Your task to perform on an android device: Open network settings Image 0: 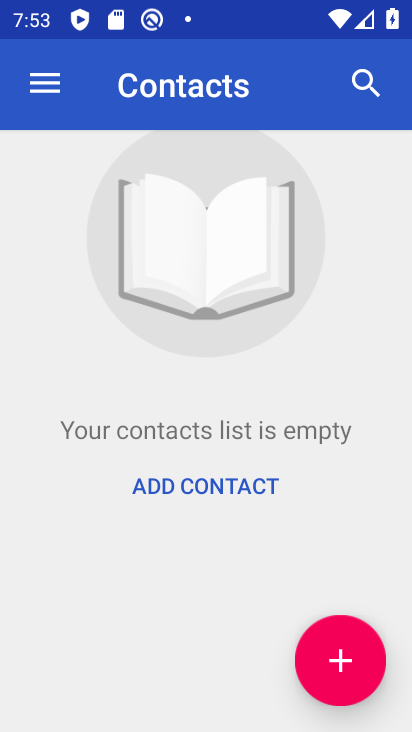
Step 0: press home button
Your task to perform on an android device: Open network settings Image 1: 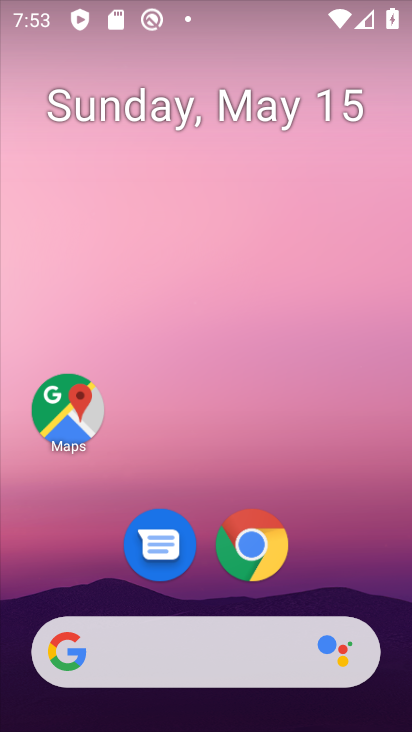
Step 1: drag from (350, 554) to (366, 79)
Your task to perform on an android device: Open network settings Image 2: 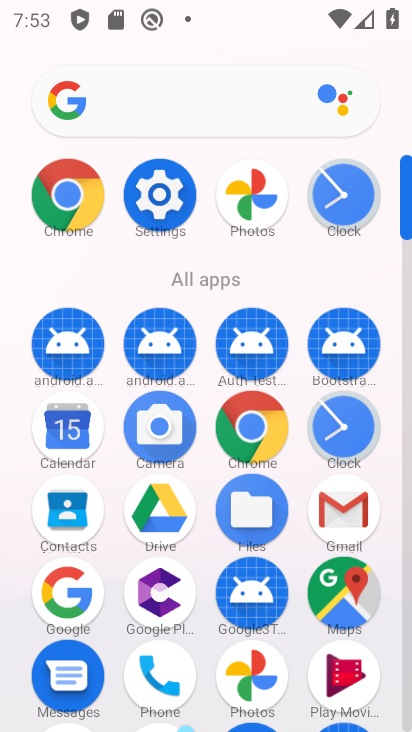
Step 2: click (154, 195)
Your task to perform on an android device: Open network settings Image 3: 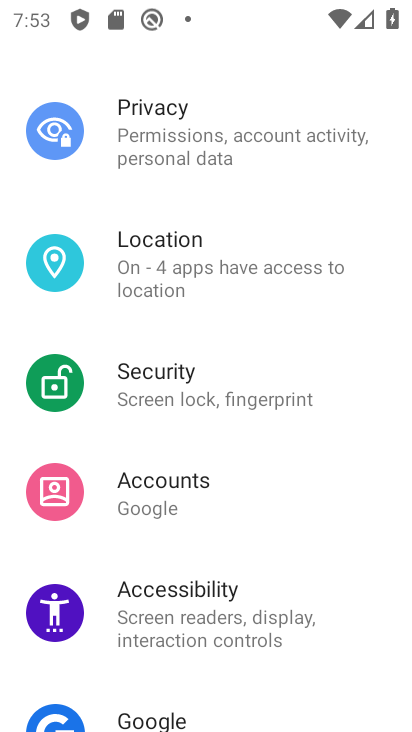
Step 3: drag from (370, 212) to (370, 449)
Your task to perform on an android device: Open network settings Image 4: 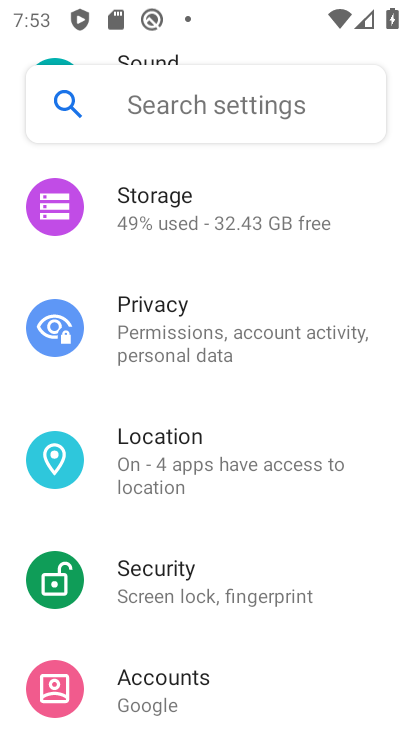
Step 4: drag from (371, 211) to (364, 439)
Your task to perform on an android device: Open network settings Image 5: 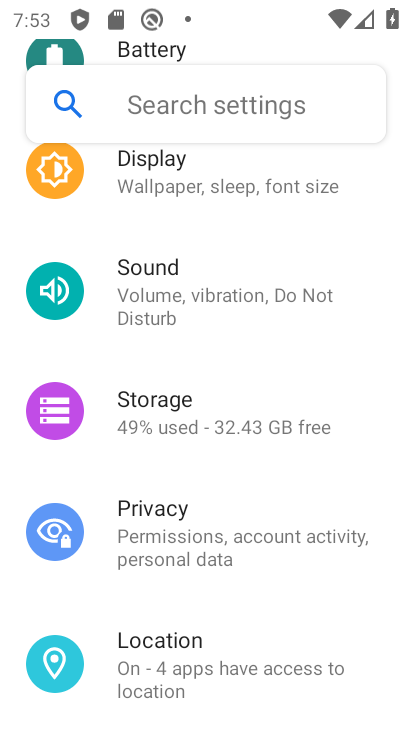
Step 5: drag from (365, 192) to (377, 403)
Your task to perform on an android device: Open network settings Image 6: 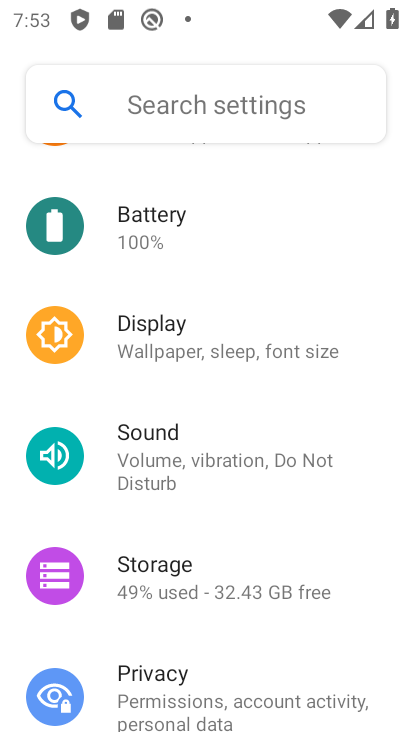
Step 6: drag from (360, 265) to (354, 443)
Your task to perform on an android device: Open network settings Image 7: 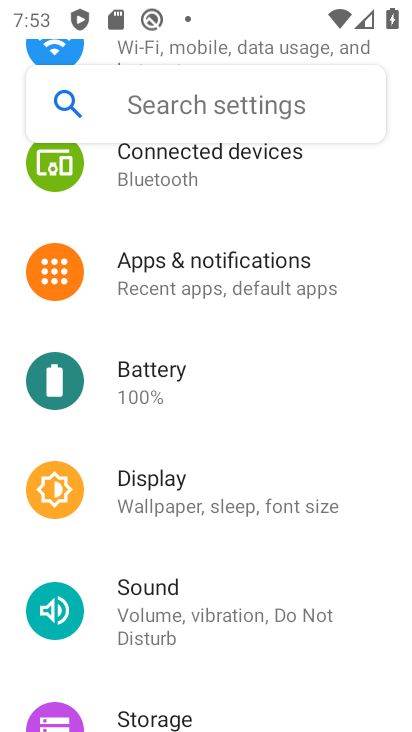
Step 7: drag from (354, 187) to (351, 512)
Your task to perform on an android device: Open network settings Image 8: 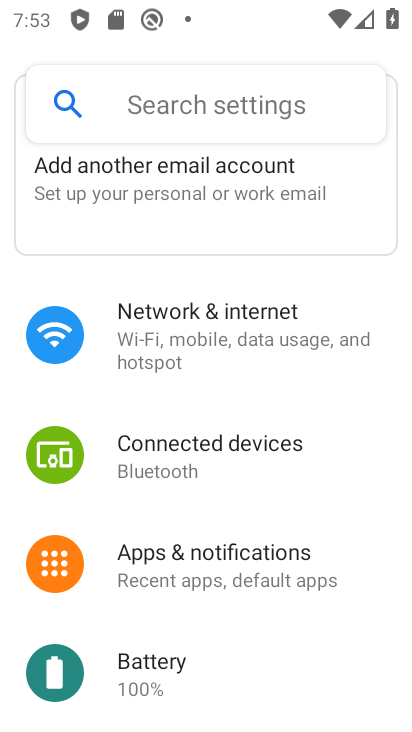
Step 8: click (285, 317)
Your task to perform on an android device: Open network settings Image 9: 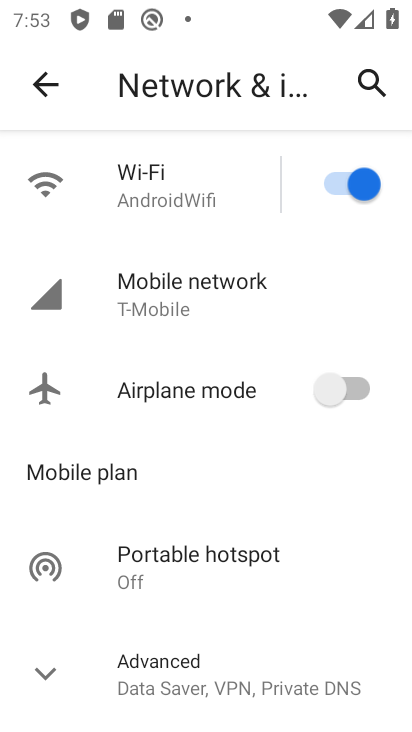
Step 9: task complete